Your task to perform on an android device: Go to Amazon Image 0: 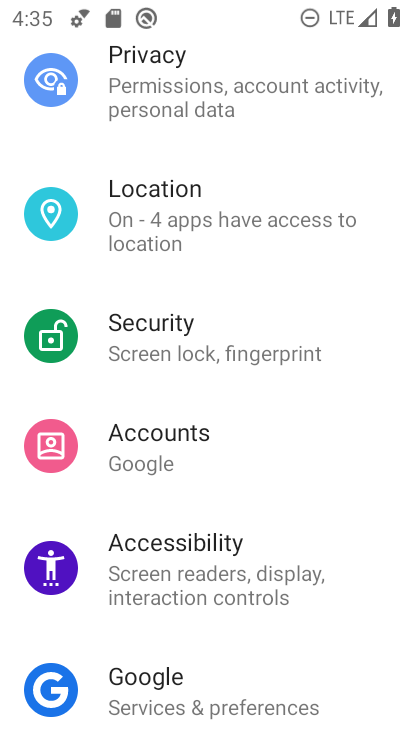
Step 0: press home button
Your task to perform on an android device: Go to Amazon Image 1: 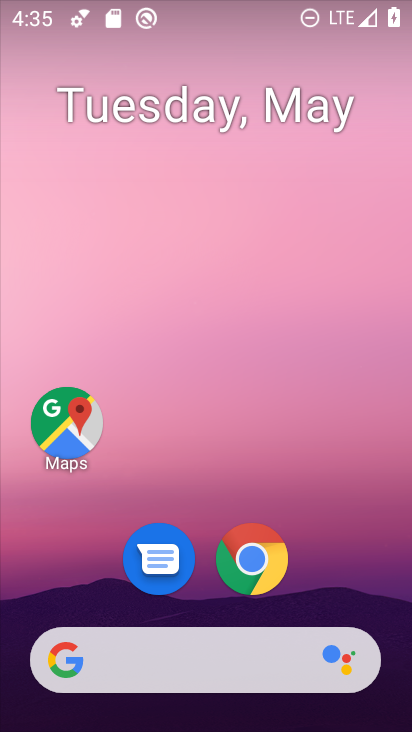
Step 1: click (241, 559)
Your task to perform on an android device: Go to Amazon Image 2: 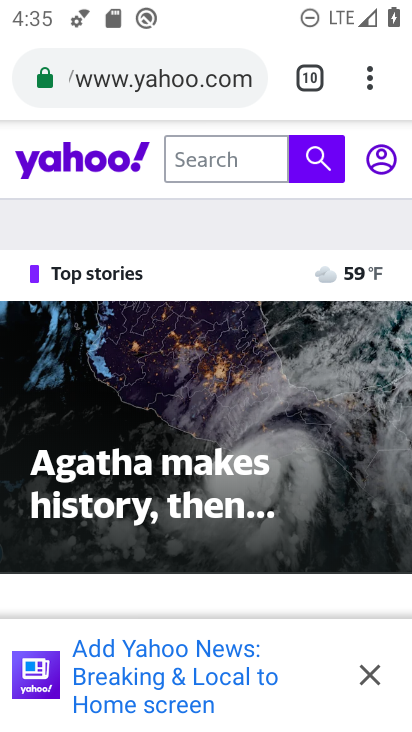
Step 2: click (368, 85)
Your task to perform on an android device: Go to Amazon Image 3: 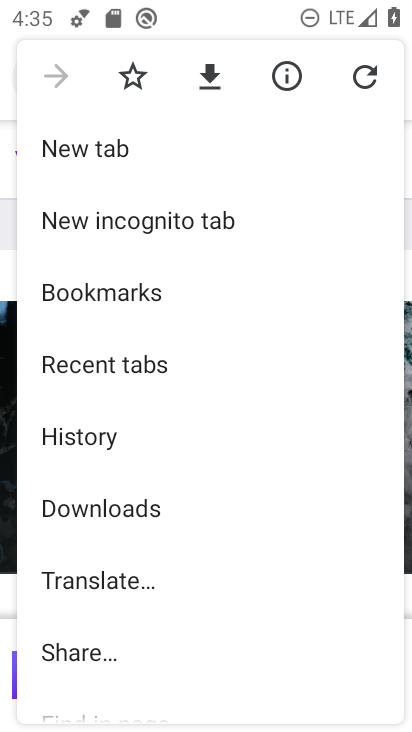
Step 3: click (76, 149)
Your task to perform on an android device: Go to Amazon Image 4: 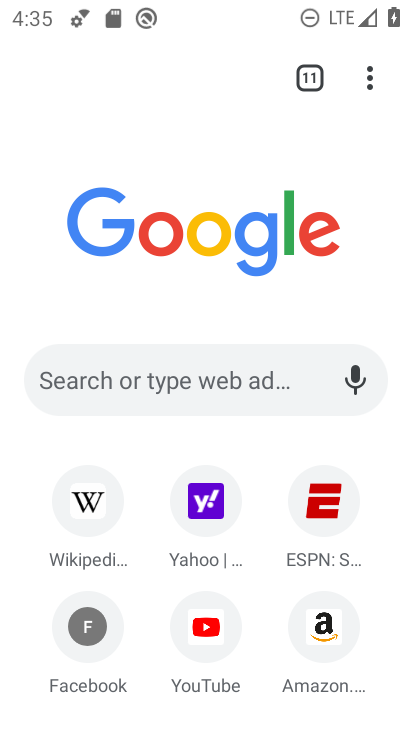
Step 4: click (333, 636)
Your task to perform on an android device: Go to Amazon Image 5: 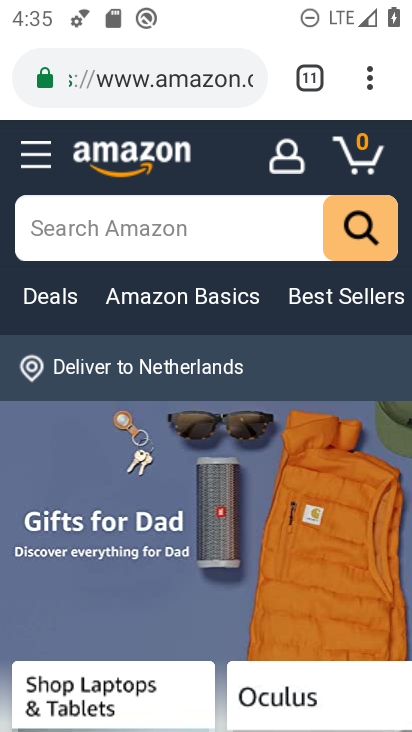
Step 5: task complete